Your task to perform on an android device: clear history in the chrome app Image 0: 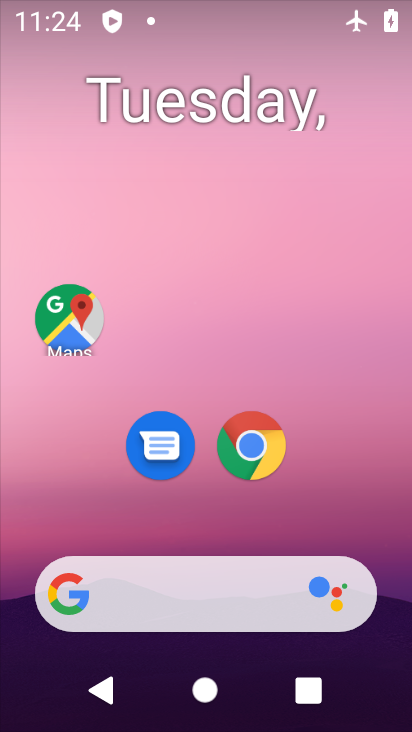
Step 0: drag from (342, 516) to (251, 23)
Your task to perform on an android device: clear history in the chrome app Image 1: 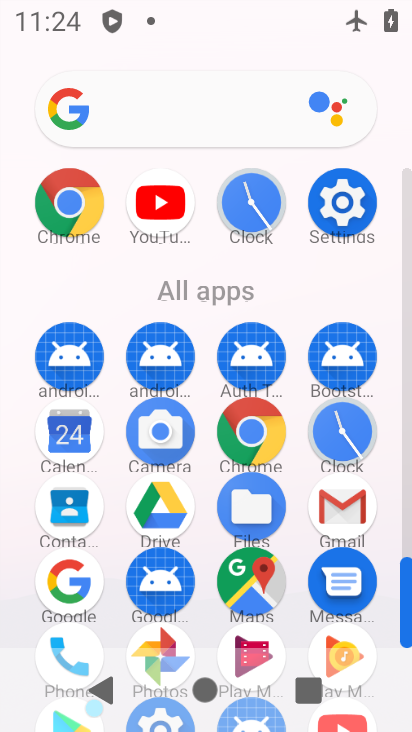
Step 1: drag from (11, 545) to (21, 234)
Your task to perform on an android device: clear history in the chrome app Image 2: 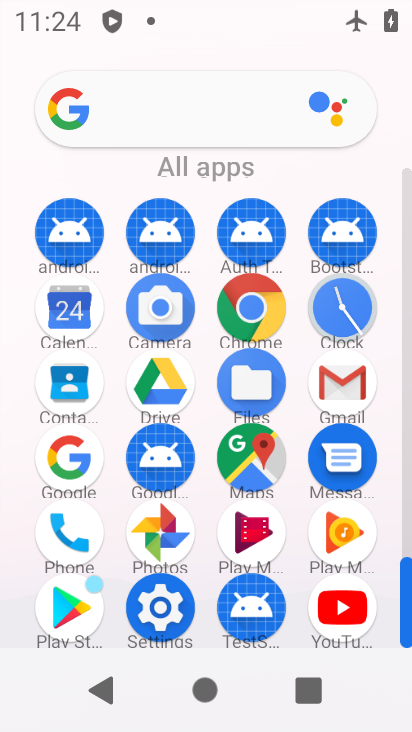
Step 2: click (248, 305)
Your task to perform on an android device: clear history in the chrome app Image 3: 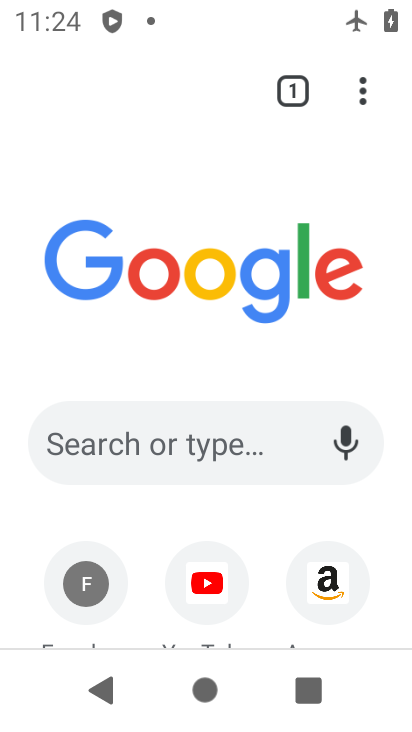
Step 3: task complete